Your task to perform on an android device: toggle show notifications on the lock screen Image 0: 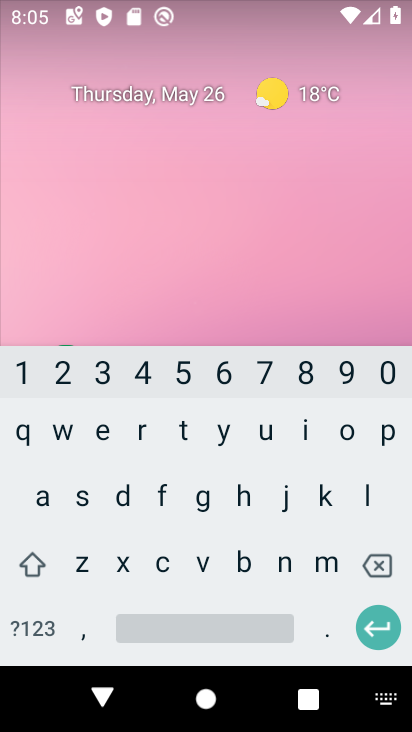
Step 0: press home button
Your task to perform on an android device: toggle show notifications on the lock screen Image 1: 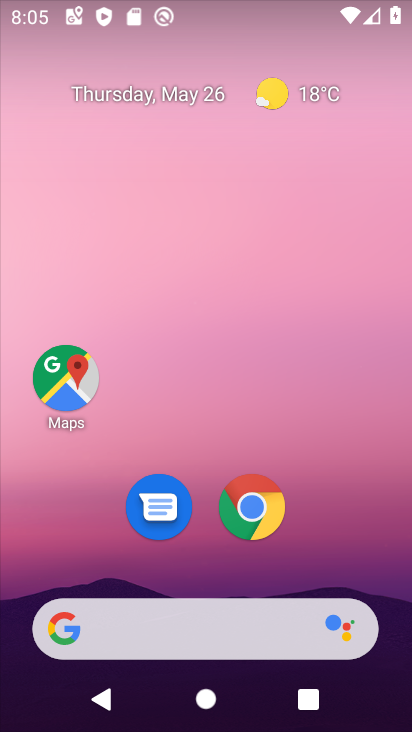
Step 1: drag from (265, 640) to (330, 153)
Your task to perform on an android device: toggle show notifications on the lock screen Image 2: 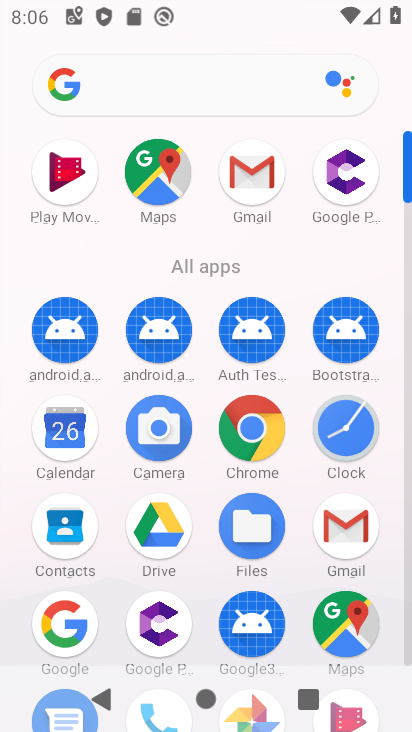
Step 2: drag from (116, 567) to (129, 361)
Your task to perform on an android device: toggle show notifications on the lock screen Image 3: 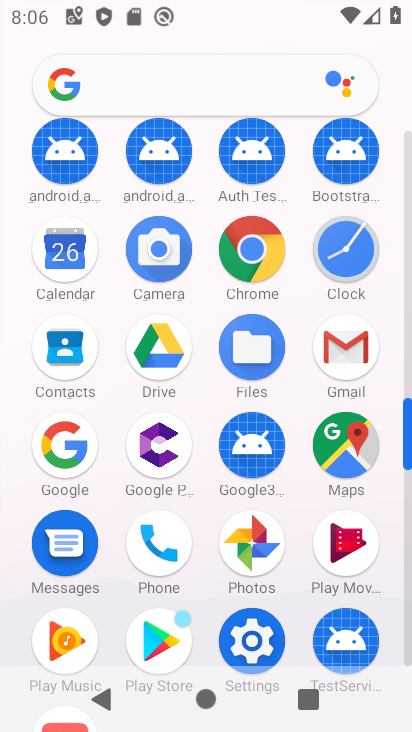
Step 3: click (253, 627)
Your task to perform on an android device: toggle show notifications on the lock screen Image 4: 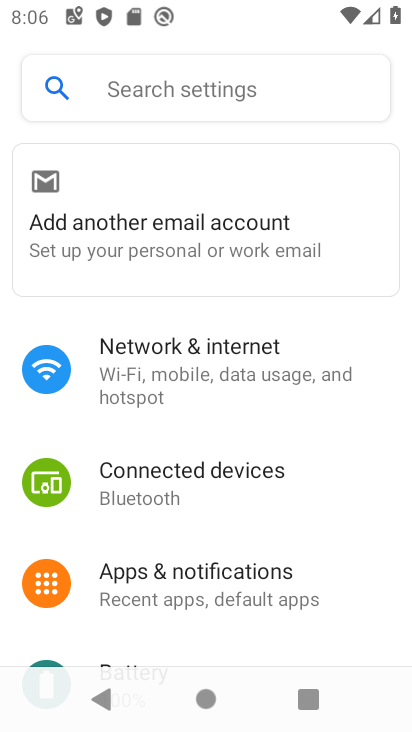
Step 4: click (126, 81)
Your task to perform on an android device: toggle show notifications on the lock screen Image 5: 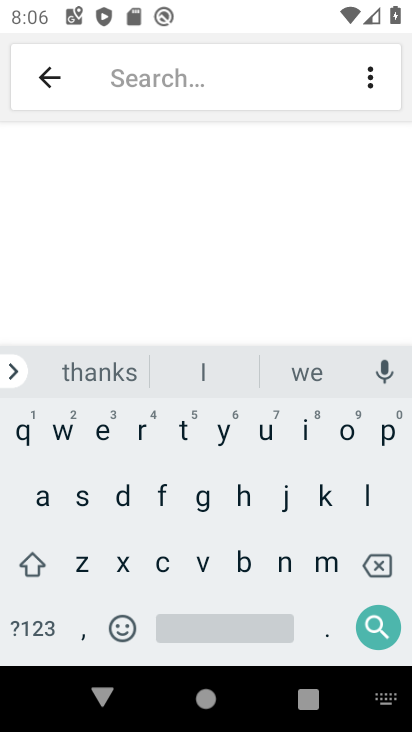
Step 5: click (368, 515)
Your task to perform on an android device: toggle show notifications on the lock screen Image 6: 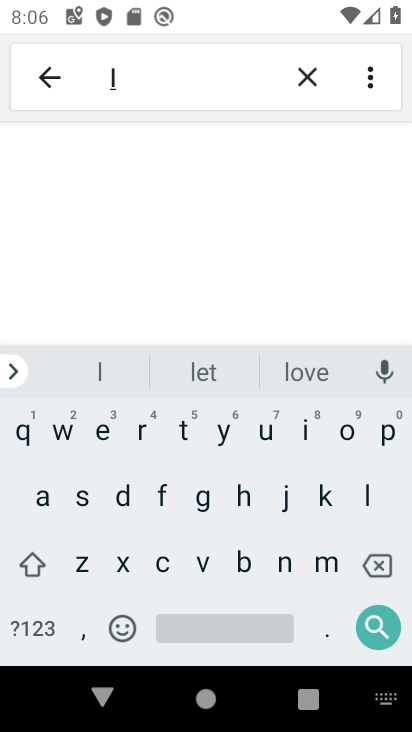
Step 6: click (339, 430)
Your task to perform on an android device: toggle show notifications on the lock screen Image 7: 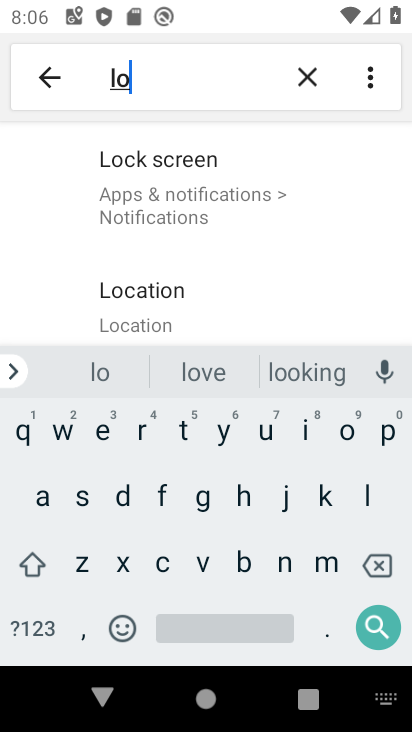
Step 7: click (171, 194)
Your task to perform on an android device: toggle show notifications on the lock screen Image 8: 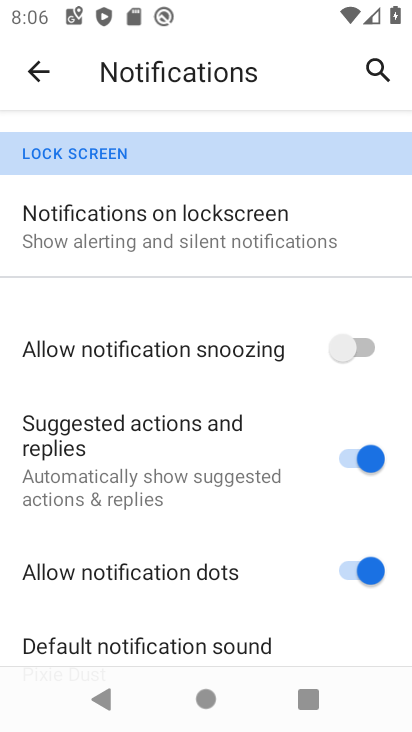
Step 8: click (171, 250)
Your task to perform on an android device: toggle show notifications on the lock screen Image 9: 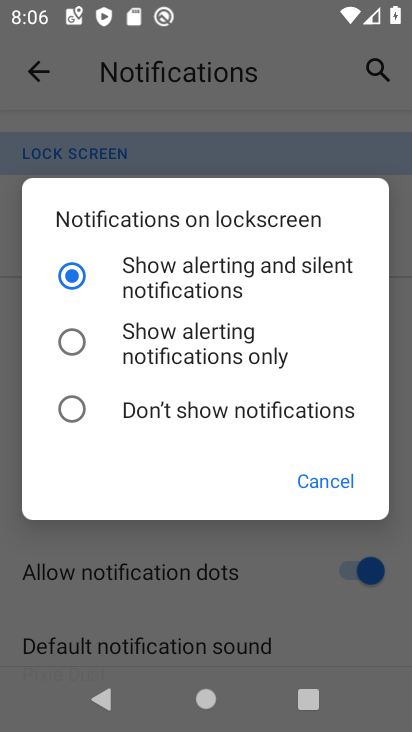
Step 9: task complete